Your task to perform on an android device: What's the weather going to be tomorrow? Image 0: 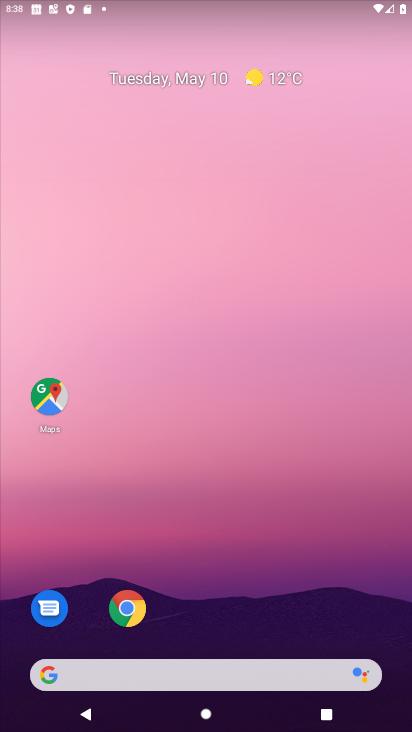
Step 0: click (285, 74)
Your task to perform on an android device: What's the weather going to be tomorrow? Image 1: 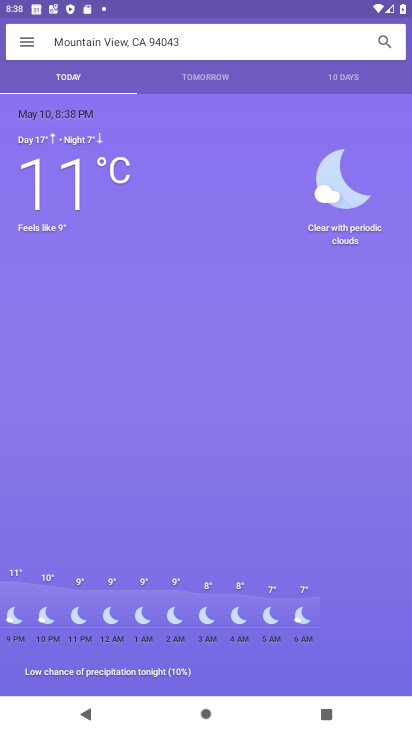
Step 1: click (186, 84)
Your task to perform on an android device: What's the weather going to be tomorrow? Image 2: 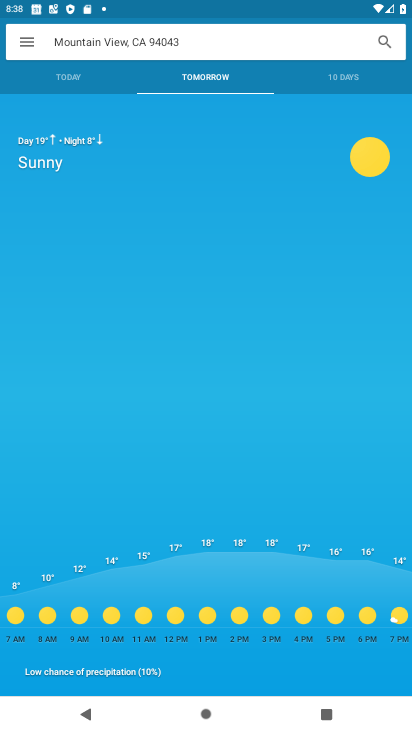
Step 2: task complete